Your task to perform on an android device: Open calendar and show me the fourth week of next month Image 0: 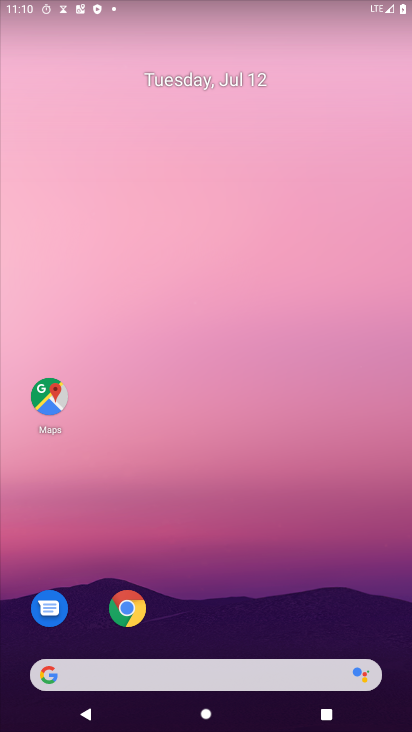
Step 0: drag from (276, 607) to (264, 24)
Your task to perform on an android device: Open calendar and show me the fourth week of next month Image 1: 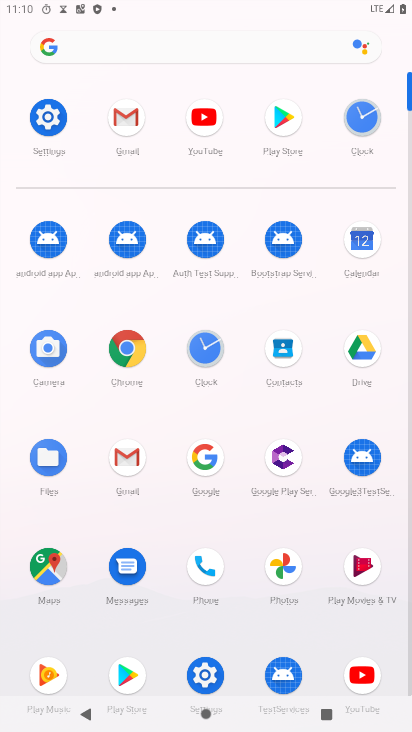
Step 1: click (369, 256)
Your task to perform on an android device: Open calendar and show me the fourth week of next month Image 2: 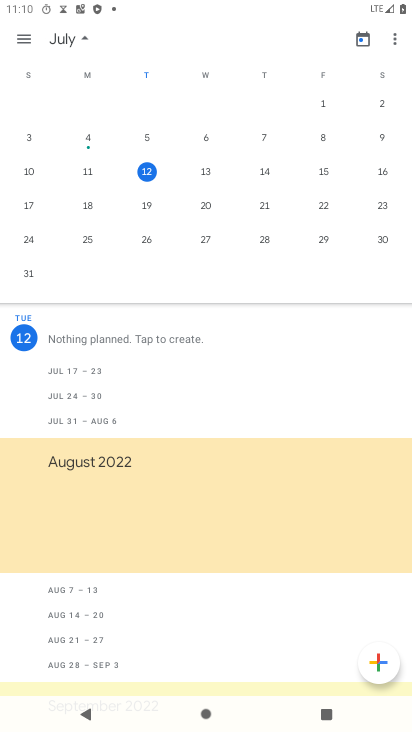
Step 2: drag from (365, 172) to (8, 115)
Your task to perform on an android device: Open calendar and show me the fourth week of next month Image 3: 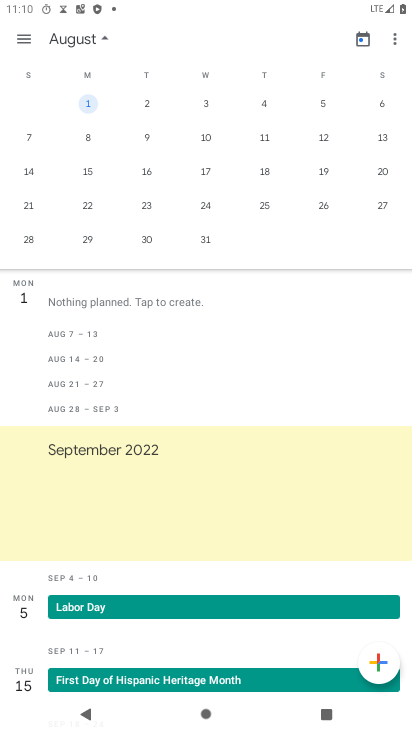
Step 3: click (32, 205)
Your task to perform on an android device: Open calendar and show me the fourth week of next month Image 4: 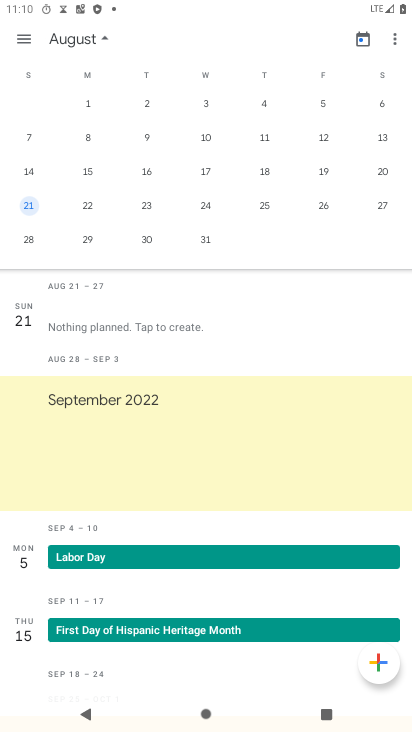
Step 4: task complete